Your task to perform on an android device: Play the last video I watched on Youtube Image 0: 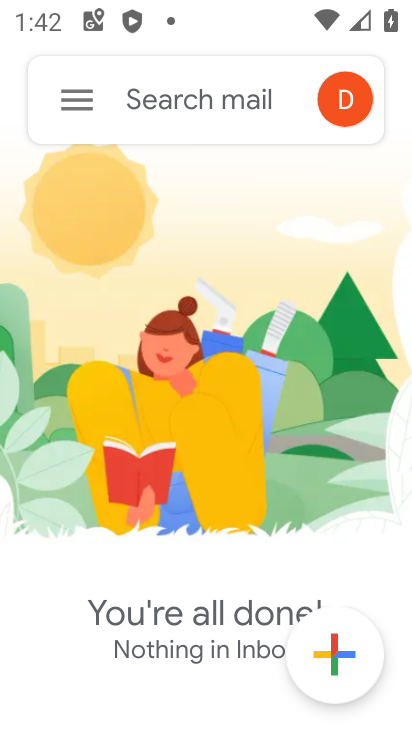
Step 0: press home button
Your task to perform on an android device: Play the last video I watched on Youtube Image 1: 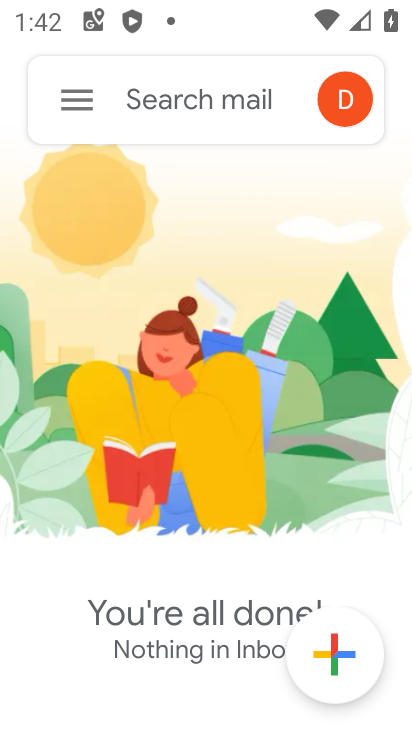
Step 1: press home button
Your task to perform on an android device: Play the last video I watched on Youtube Image 2: 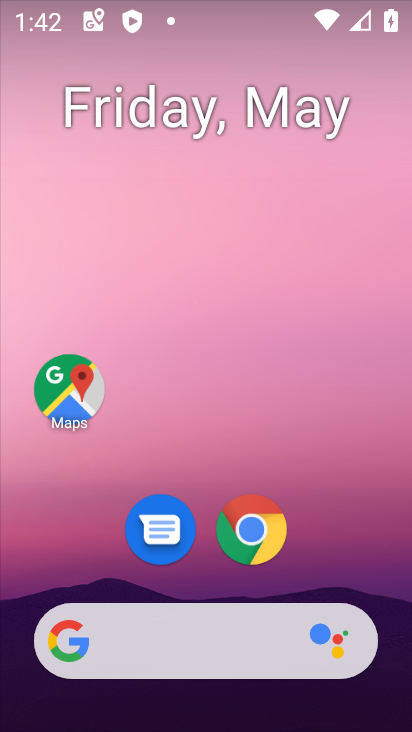
Step 2: drag from (371, 531) to (251, 92)
Your task to perform on an android device: Play the last video I watched on Youtube Image 3: 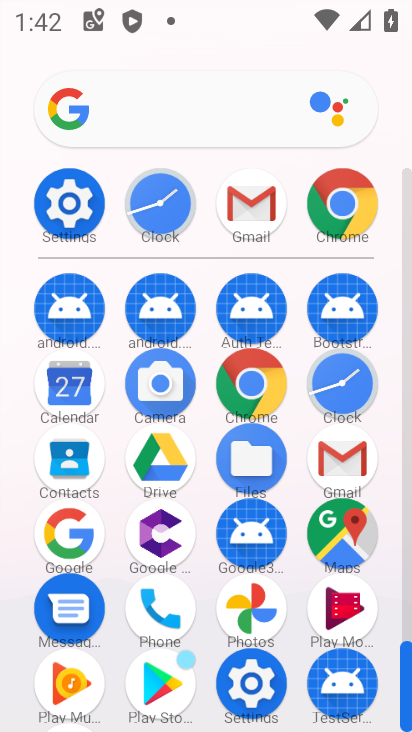
Step 3: drag from (407, 656) to (402, 720)
Your task to perform on an android device: Play the last video I watched on Youtube Image 4: 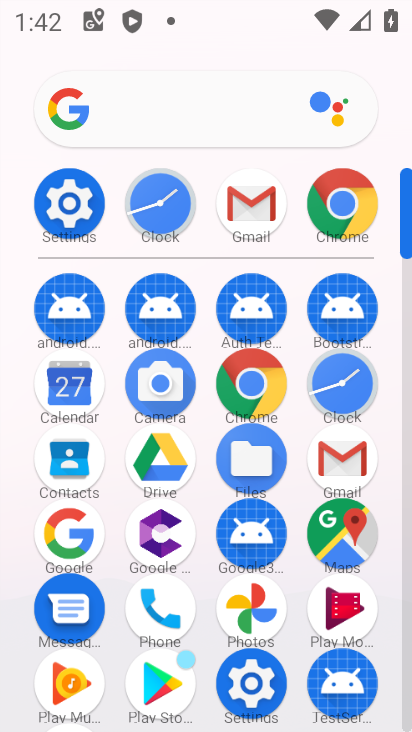
Step 4: click (406, 720)
Your task to perform on an android device: Play the last video I watched on Youtube Image 5: 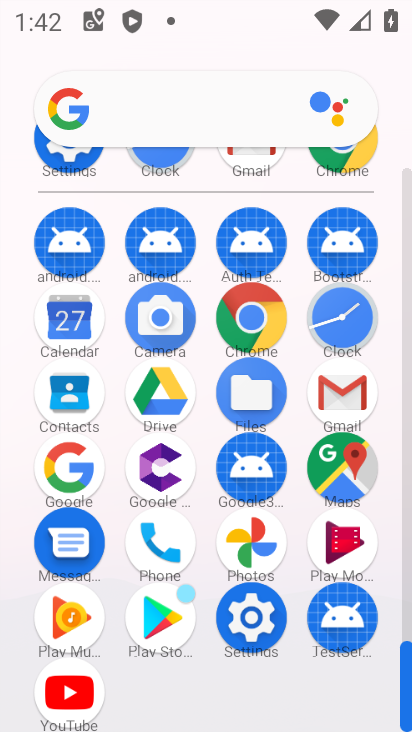
Step 5: click (88, 710)
Your task to perform on an android device: Play the last video I watched on Youtube Image 6: 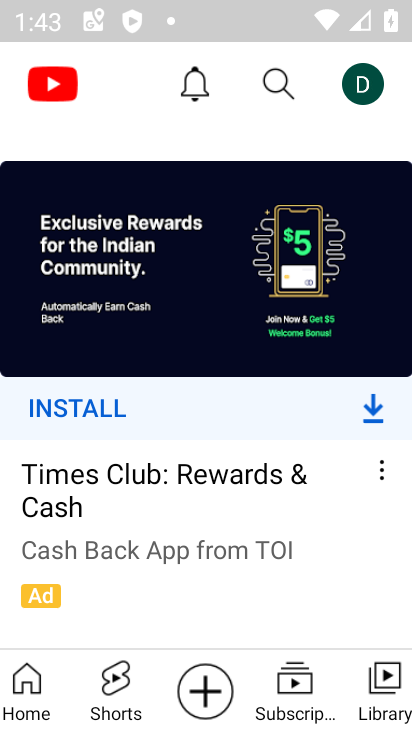
Step 6: click (376, 689)
Your task to perform on an android device: Play the last video I watched on Youtube Image 7: 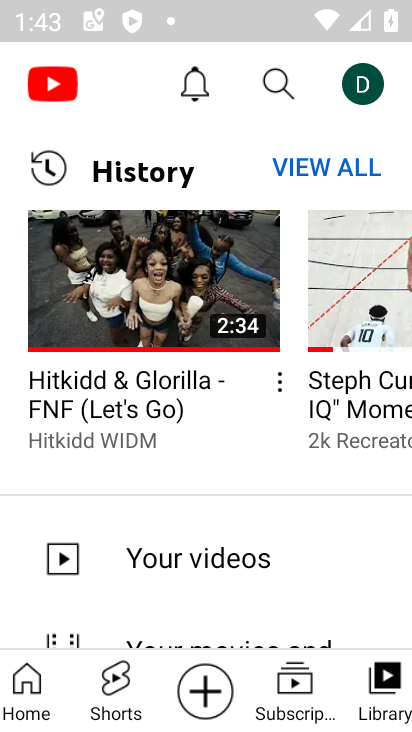
Step 7: click (136, 276)
Your task to perform on an android device: Play the last video I watched on Youtube Image 8: 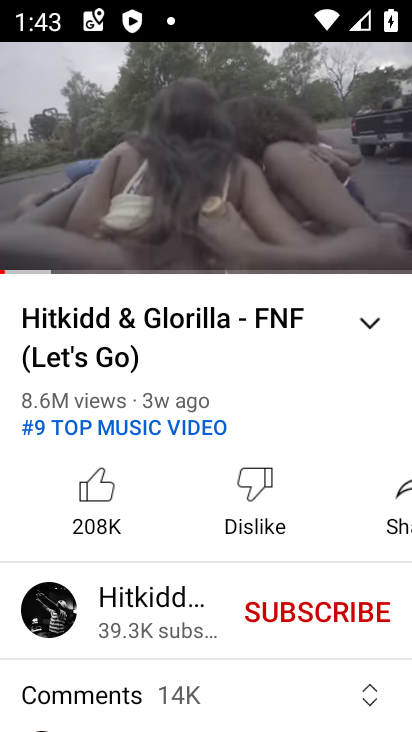
Step 8: task complete